Your task to perform on an android device: open a bookmark in the chrome app Image 0: 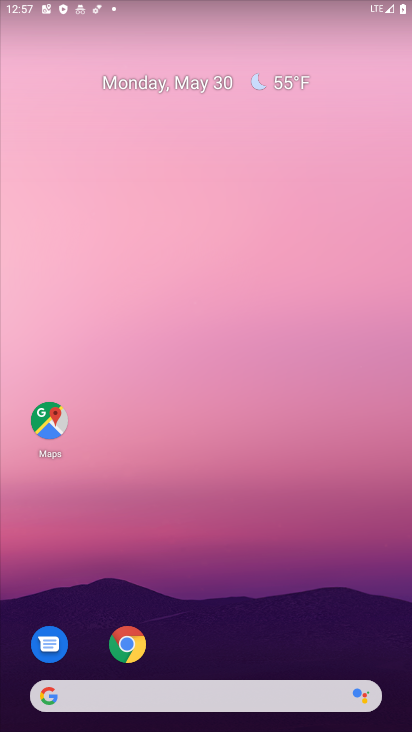
Step 0: click (122, 639)
Your task to perform on an android device: open a bookmark in the chrome app Image 1: 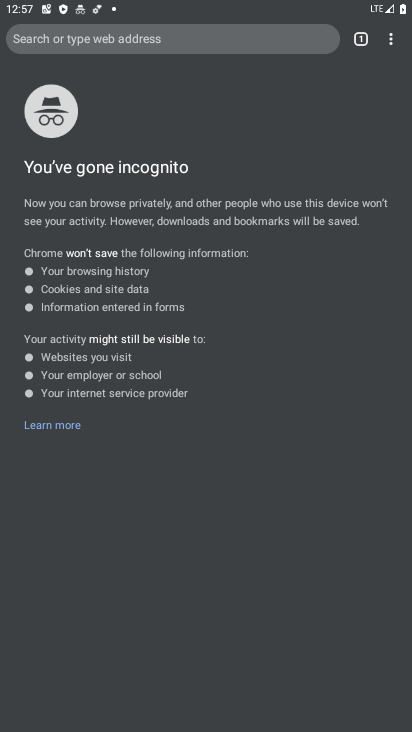
Step 1: click (390, 41)
Your task to perform on an android device: open a bookmark in the chrome app Image 2: 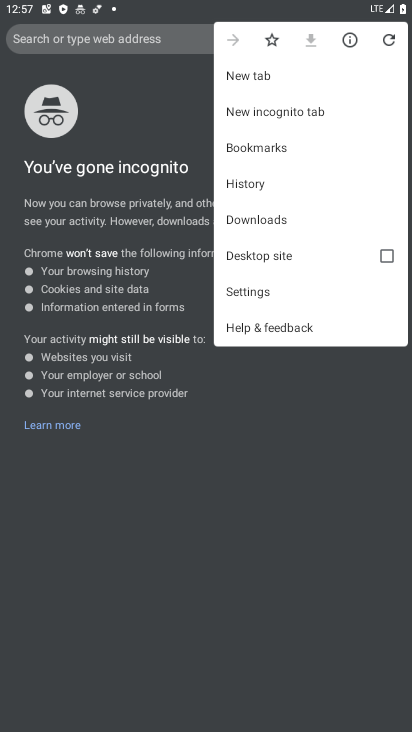
Step 2: click (292, 147)
Your task to perform on an android device: open a bookmark in the chrome app Image 3: 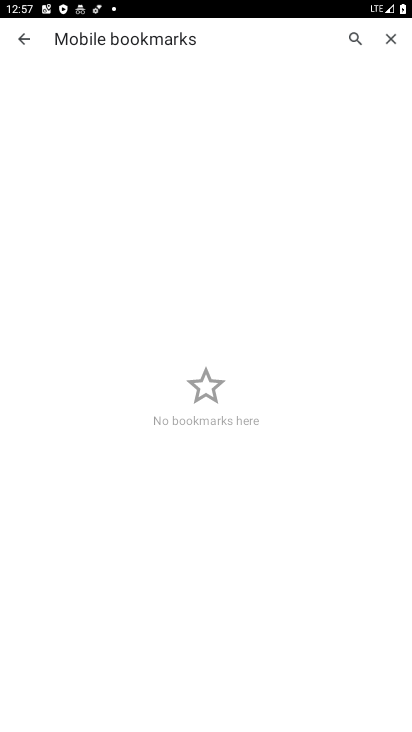
Step 3: task complete